Your task to perform on an android device: Open settings Image 0: 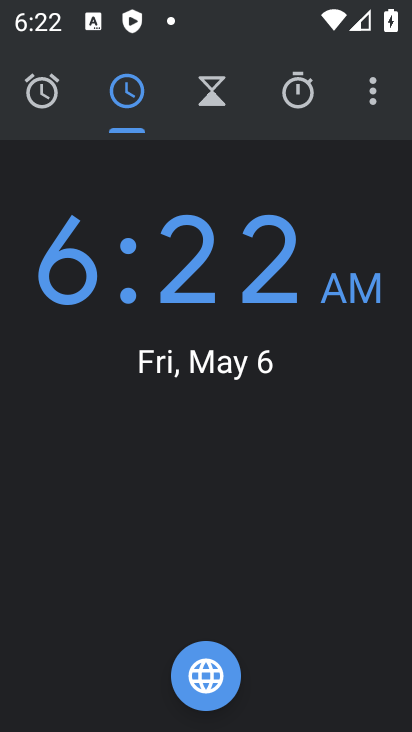
Step 0: press home button
Your task to perform on an android device: Open settings Image 1: 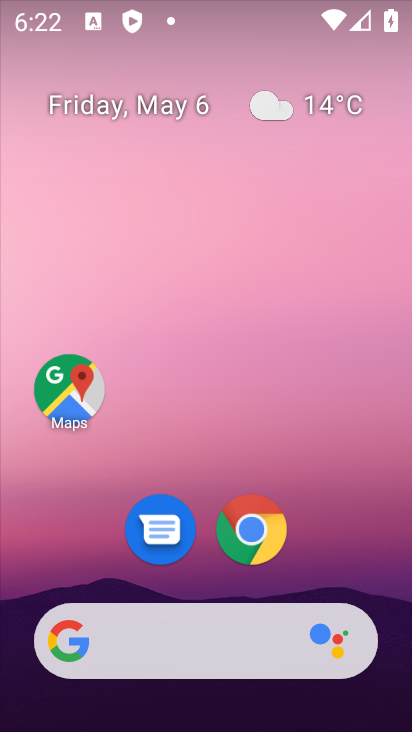
Step 1: drag from (325, 532) to (228, 25)
Your task to perform on an android device: Open settings Image 2: 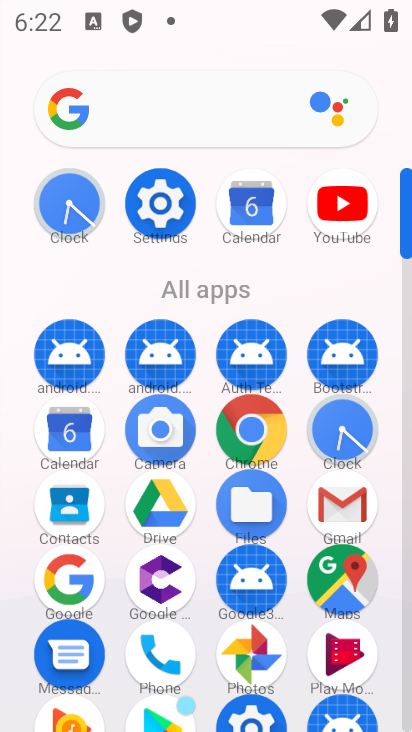
Step 2: click (162, 218)
Your task to perform on an android device: Open settings Image 3: 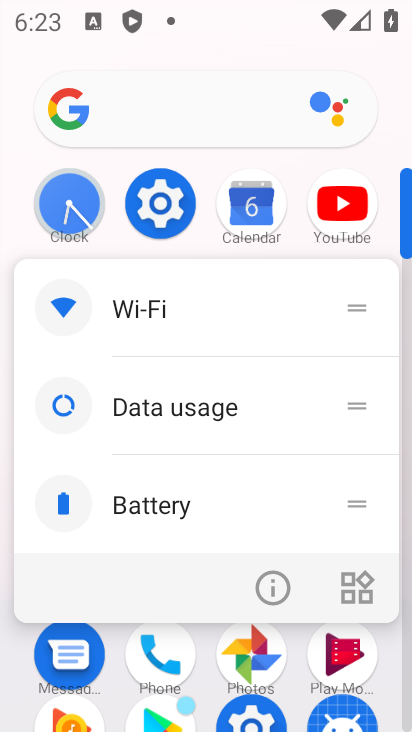
Step 3: click (156, 208)
Your task to perform on an android device: Open settings Image 4: 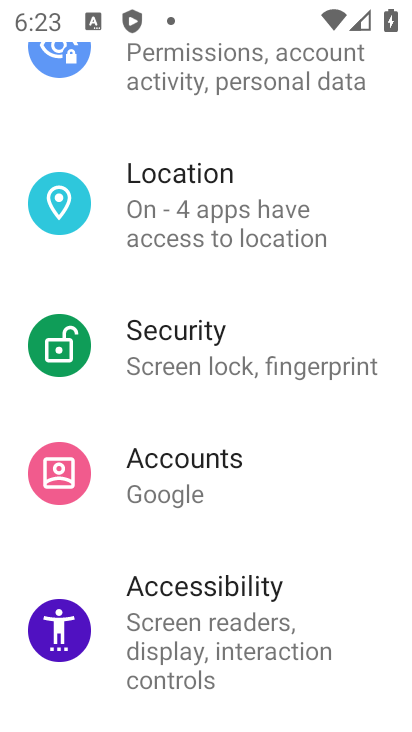
Step 4: task complete